Your task to perform on an android device: toggle wifi Image 0: 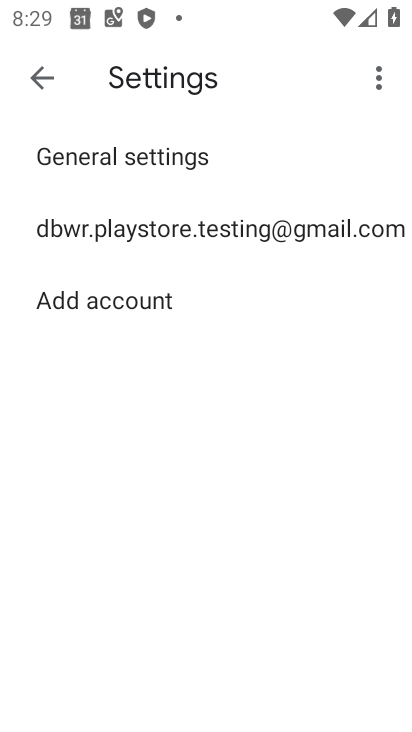
Step 0: press back button
Your task to perform on an android device: toggle wifi Image 1: 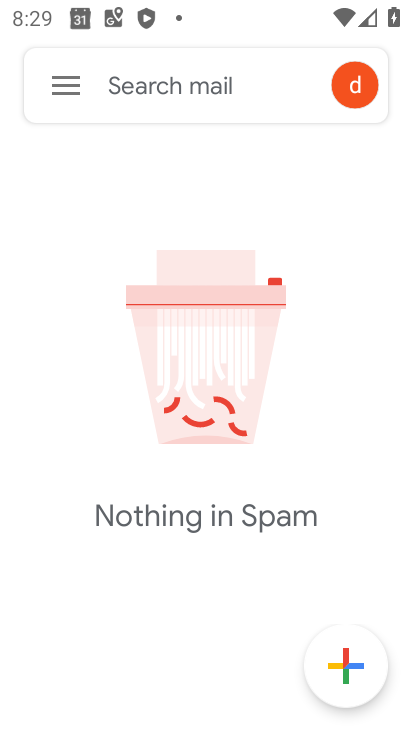
Step 1: press back button
Your task to perform on an android device: toggle wifi Image 2: 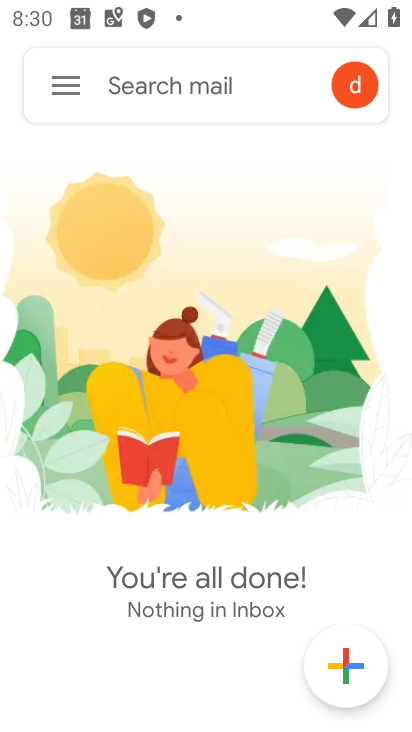
Step 2: drag from (128, 12) to (224, 606)
Your task to perform on an android device: toggle wifi Image 3: 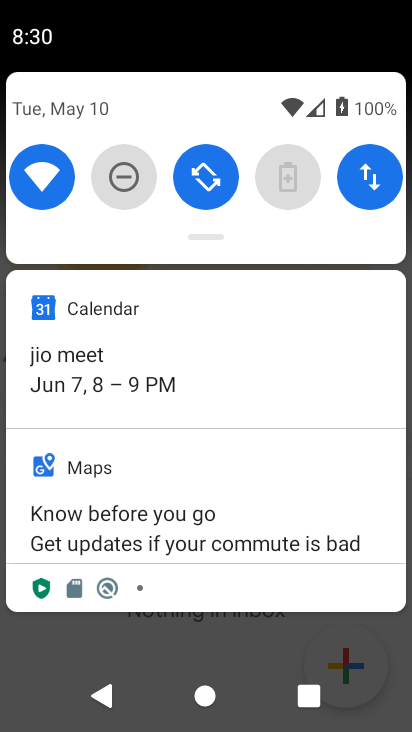
Step 3: click (45, 170)
Your task to perform on an android device: toggle wifi Image 4: 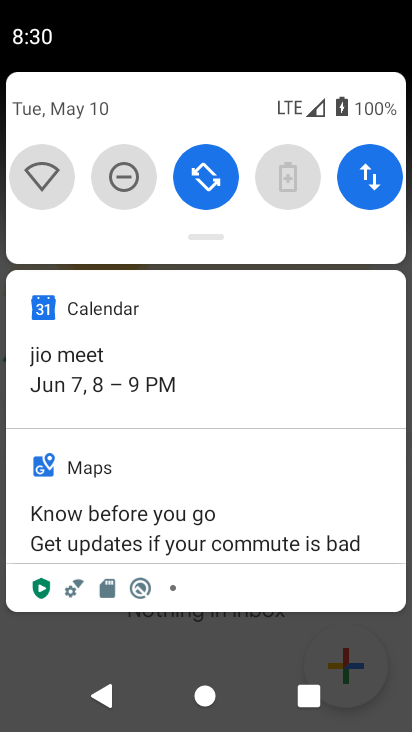
Step 4: task complete